Your task to perform on an android device: open app "Venmo" (install if not already installed) Image 0: 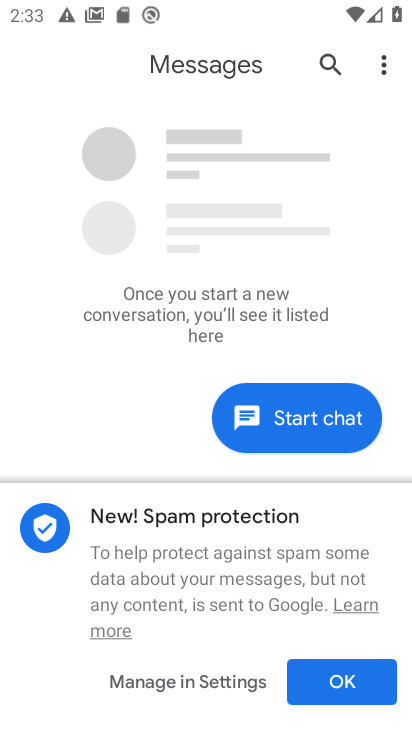
Step 0: press back button
Your task to perform on an android device: open app "Venmo" (install if not already installed) Image 1: 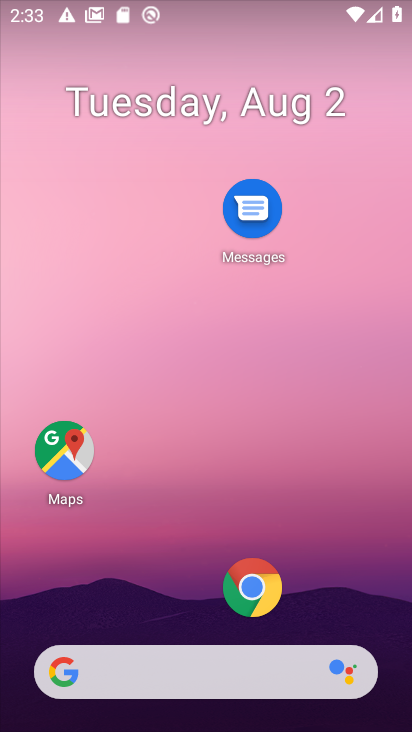
Step 1: drag from (131, 601) to (246, 197)
Your task to perform on an android device: open app "Venmo" (install if not already installed) Image 2: 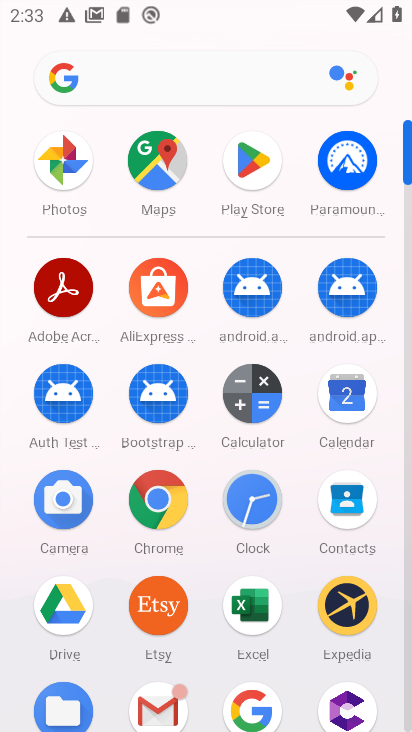
Step 2: click (260, 187)
Your task to perform on an android device: open app "Venmo" (install if not already installed) Image 3: 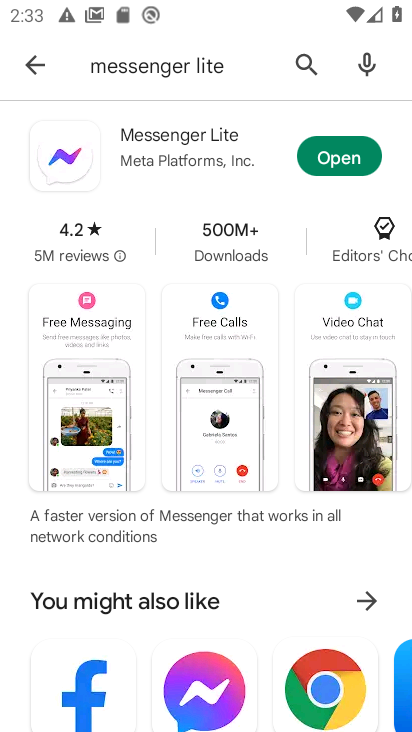
Step 3: click (318, 67)
Your task to perform on an android device: open app "Venmo" (install if not already installed) Image 4: 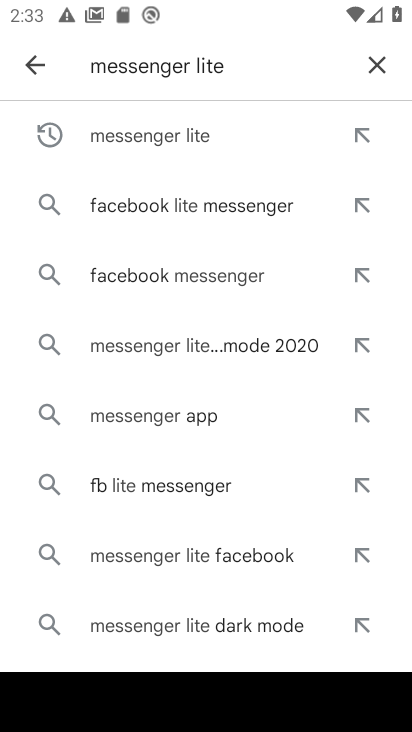
Step 4: click (373, 58)
Your task to perform on an android device: open app "Venmo" (install if not already installed) Image 5: 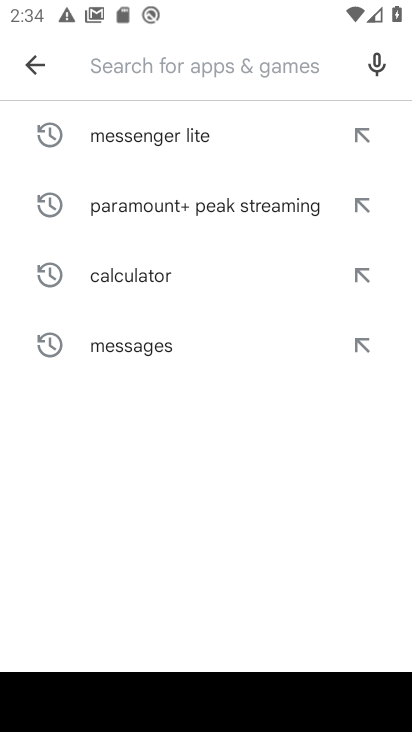
Step 5: type "Venmo"
Your task to perform on an android device: open app "Venmo" (install if not already installed) Image 6: 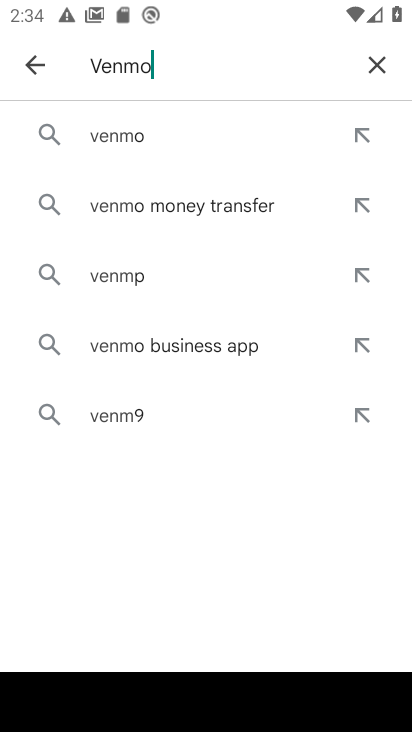
Step 6: type ""
Your task to perform on an android device: open app "Venmo" (install if not already installed) Image 7: 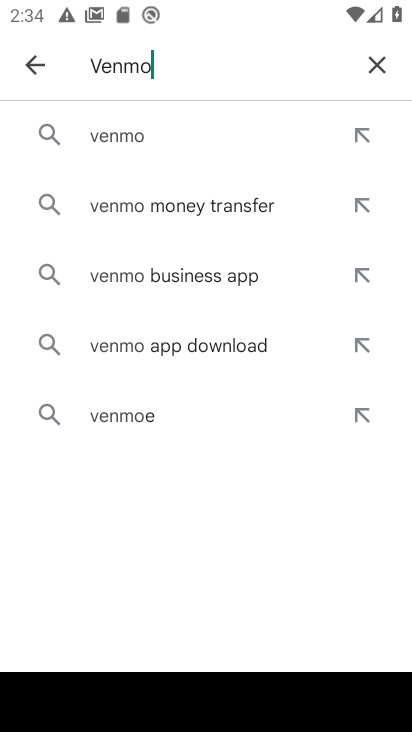
Step 7: click (133, 130)
Your task to perform on an android device: open app "Venmo" (install if not already installed) Image 8: 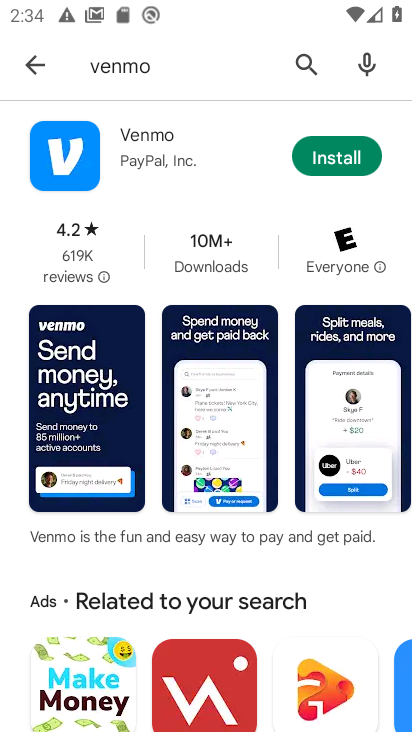
Step 8: click (331, 165)
Your task to perform on an android device: open app "Venmo" (install if not already installed) Image 9: 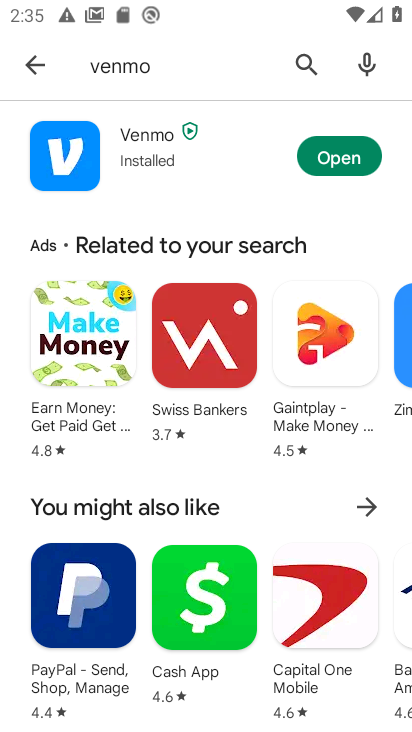
Step 9: click (331, 165)
Your task to perform on an android device: open app "Venmo" (install if not already installed) Image 10: 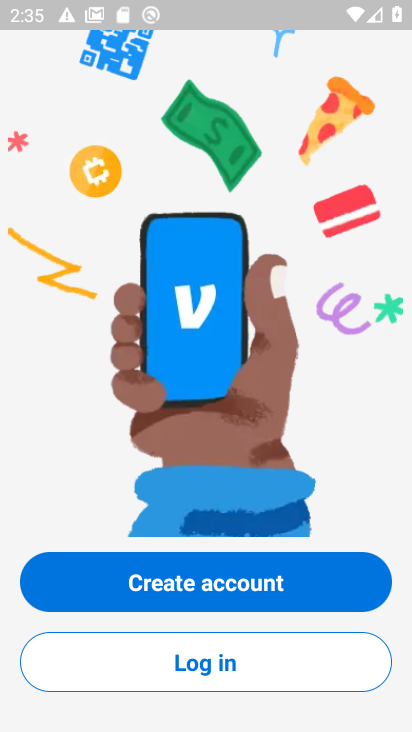
Step 10: press home button
Your task to perform on an android device: open app "Venmo" (install if not already installed) Image 11: 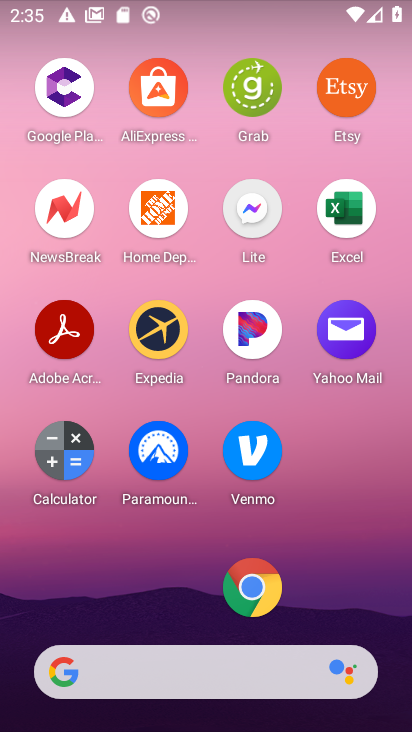
Step 11: drag from (167, 607) to (242, 203)
Your task to perform on an android device: open app "Venmo" (install if not already installed) Image 12: 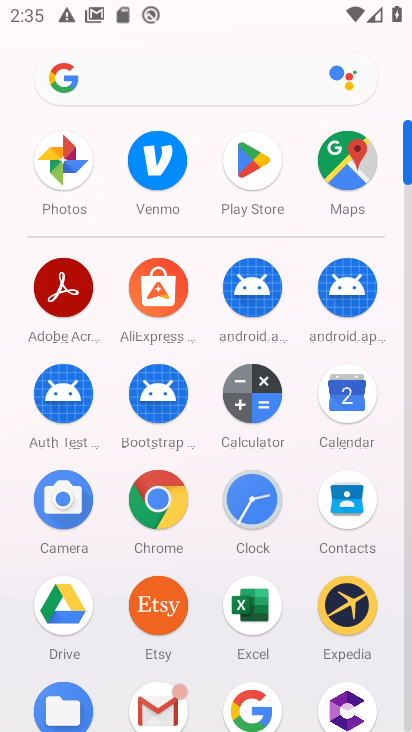
Step 12: click (238, 188)
Your task to perform on an android device: open app "Venmo" (install if not already installed) Image 13: 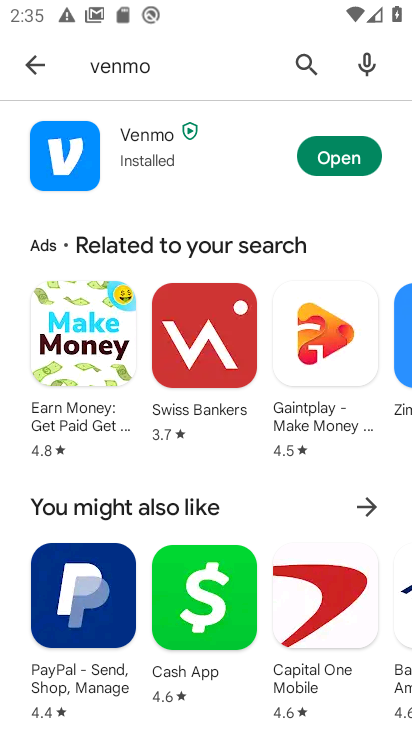
Step 13: click (321, 150)
Your task to perform on an android device: open app "Venmo" (install if not already installed) Image 14: 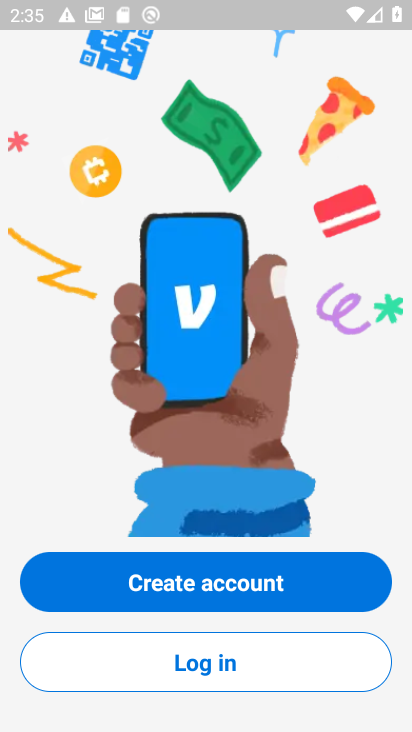
Step 14: task complete